Your task to perform on an android device: change your default location settings in chrome Image 0: 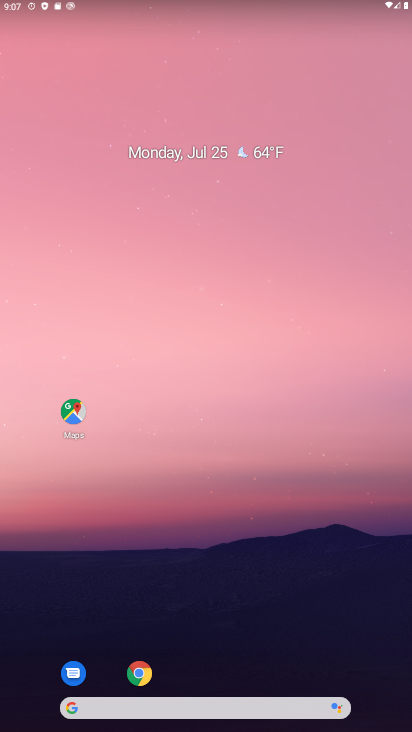
Step 0: press home button
Your task to perform on an android device: change your default location settings in chrome Image 1: 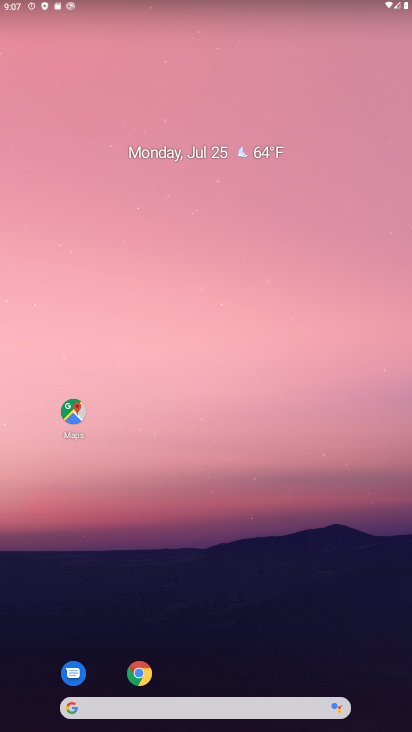
Step 1: click (139, 668)
Your task to perform on an android device: change your default location settings in chrome Image 2: 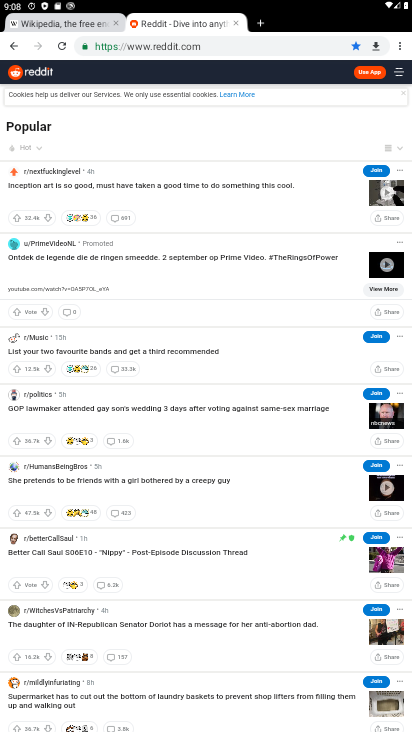
Step 2: click (402, 45)
Your task to perform on an android device: change your default location settings in chrome Image 3: 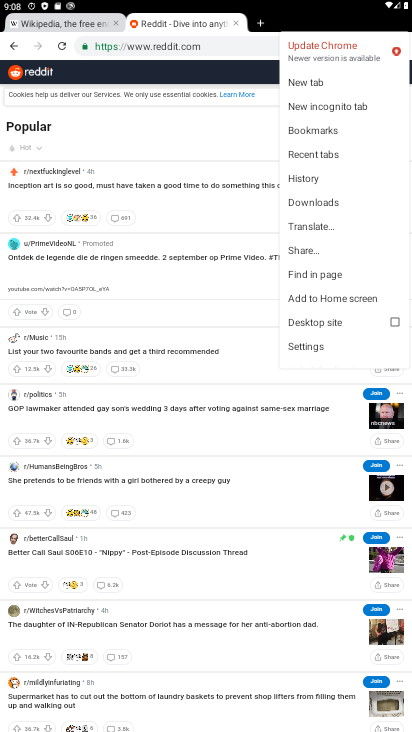
Step 3: click (322, 344)
Your task to perform on an android device: change your default location settings in chrome Image 4: 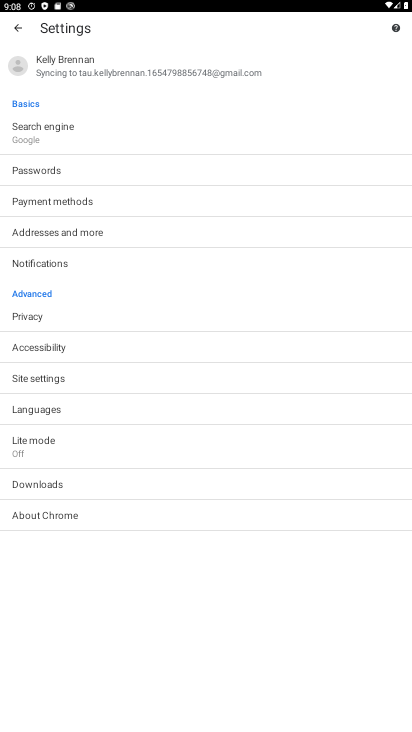
Step 4: click (70, 376)
Your task to perform on an android device: change your default location settings in chrome Image 5: 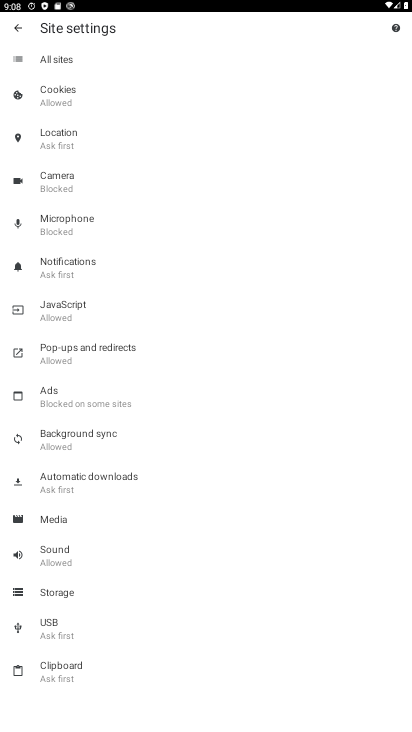
Step 5: click (80, 133)
Your task to perform on an android device: change your default location settings in chrome Image 6: 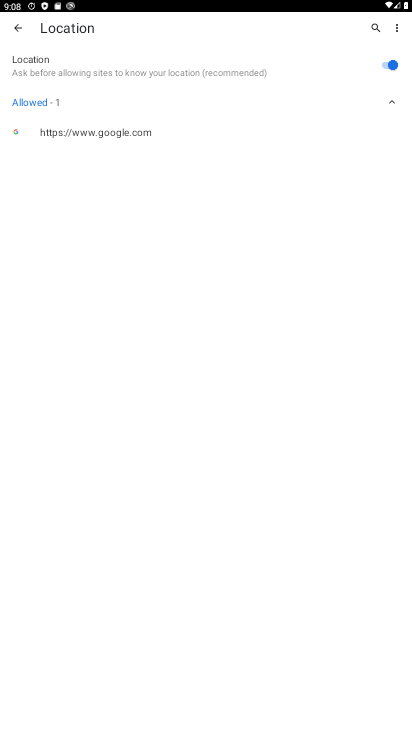
Step 6: click (383, 63)
Your task to perform on an android device: change your default location settings in chrome Image 7: 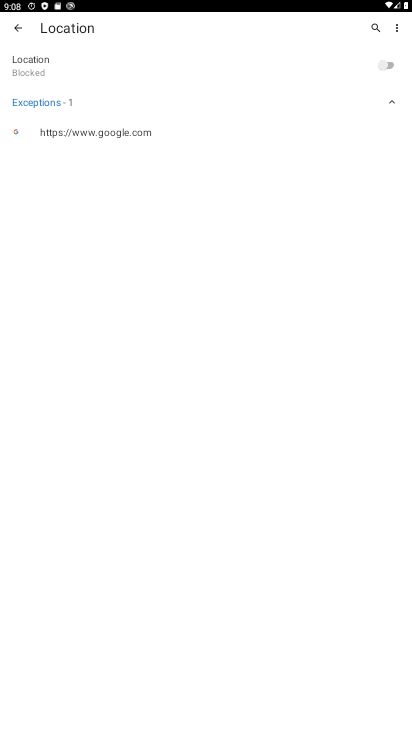
Step 7: task complete